Your task to perform on an android device: When is my next meeting? Image 0: 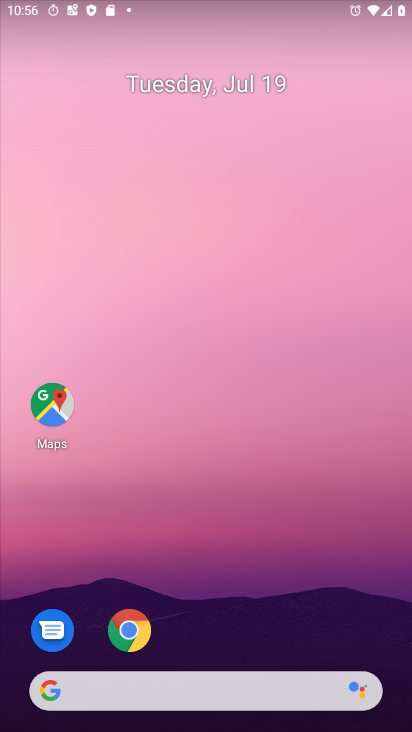
Step 0: press home button
Your task to perform on an android device: When is my next meeting? Image 1: 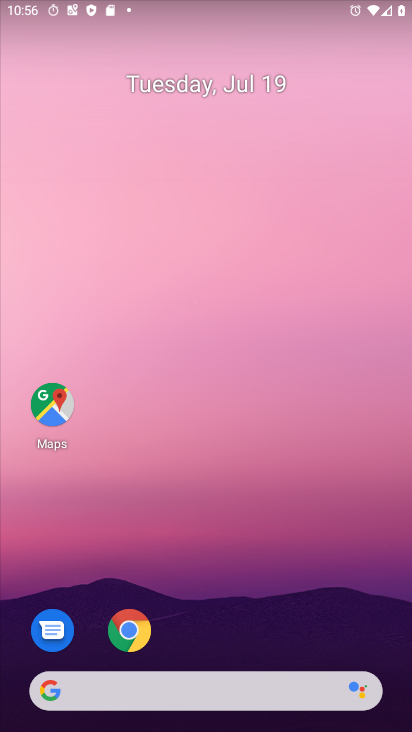
Step 1: drag from (278, 621) to (215, 118)
Your task to perform on an android device: When is my next meeting? Image 2: 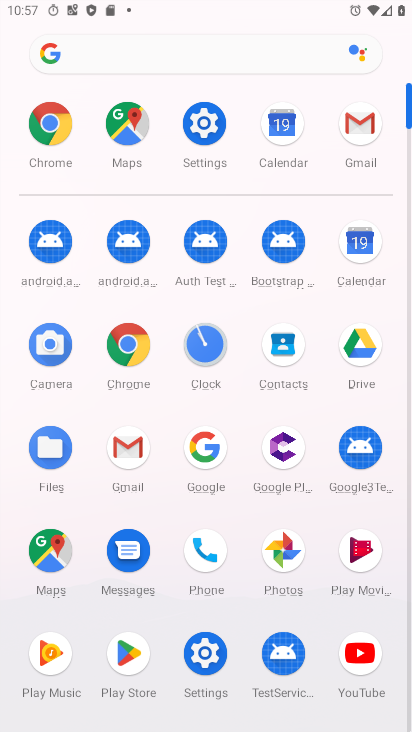
Step 2: click (367, 243)
Your task to perform on an android device: When is my next meeting? Image 3: 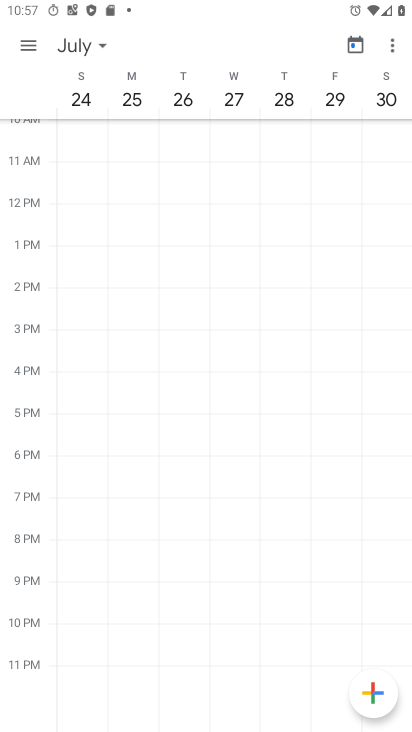
Step 3: click (21, 45)
Your task to perform on an android device: When is my next meeting? Image 4: 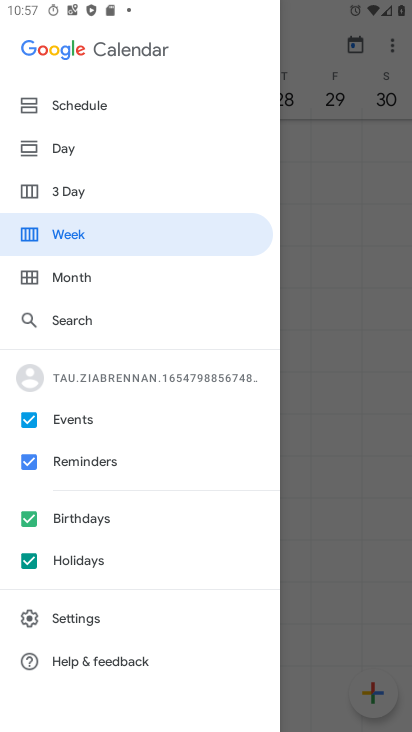
Step 4: click (86, 110)
Your task to perform on an android device: When is my next meeting? Image 5: 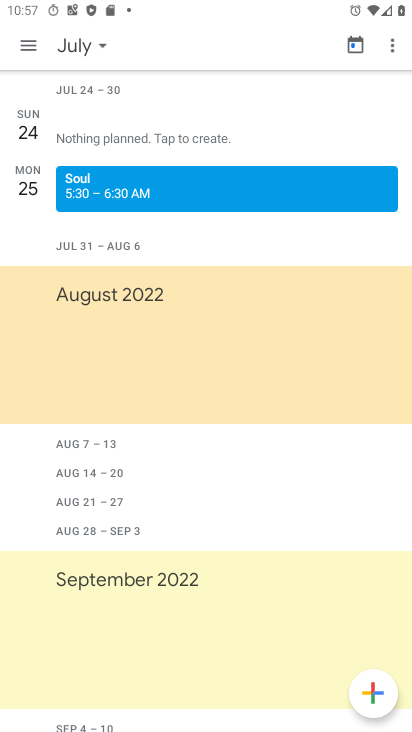
Step 5: task complete